Your task to perform on an android device: turn on translation in the chrome app Image 0: 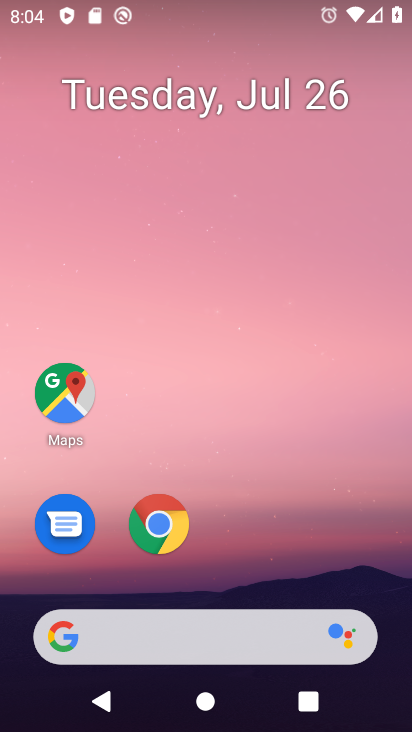
Step 0: click (167, 525)
Your task to perform on an android device: turn on translation in the chrome app Image 1: 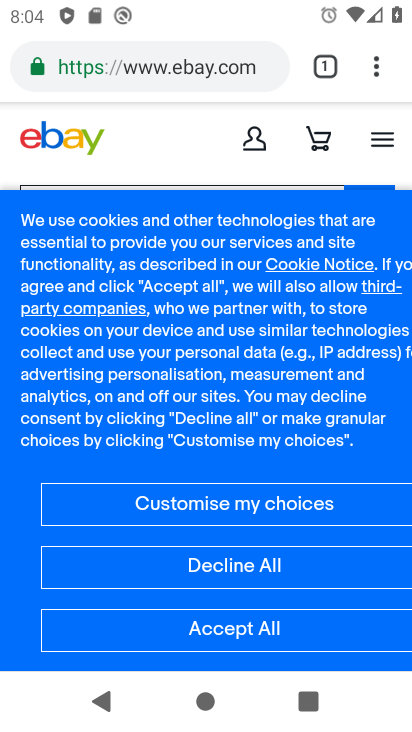
Step 1: click (320, 556)
Your task to perform on an android device: turn on translation in the chrome app Image 2: 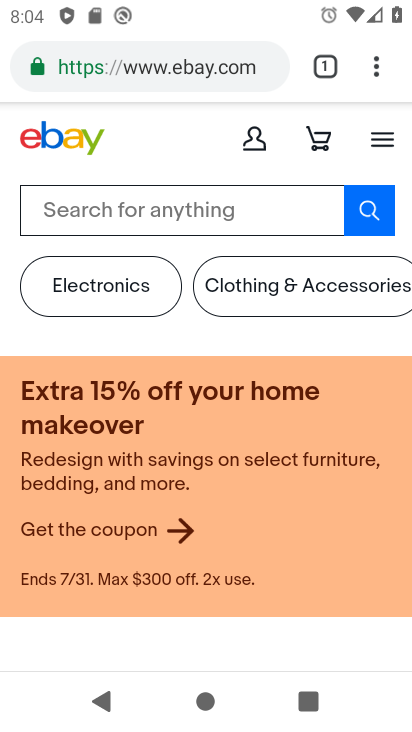
Step 2: click (376, 68)
Your task to perform on an android device: turn on translation in the chrome app Image 3: 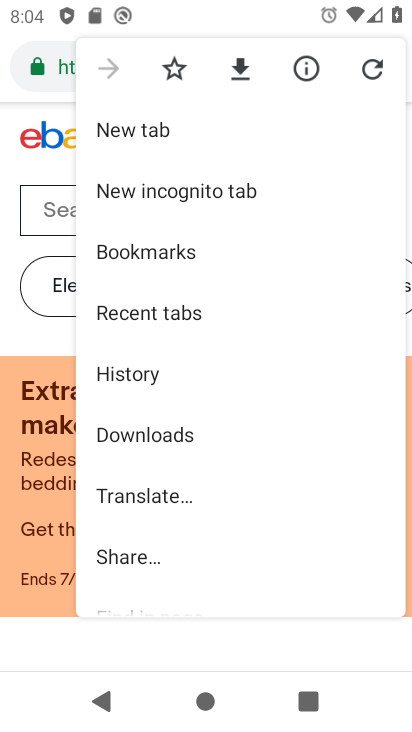
Step 3: drag from (246, 487) to (273, 153)
Your task to perform on an android device: turn on translation in the chrome app Image 4: 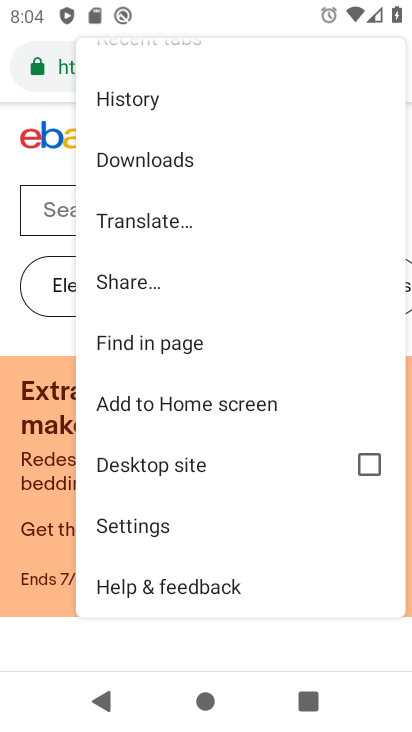
Step 4: click (161, 529)
Your task to perform on an android device: turn on translation in the chrome app Image 5: 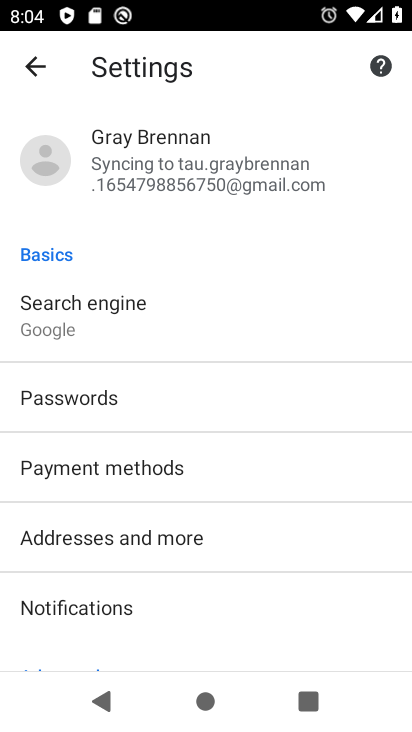
Step 5: drag from (270, 438) to (286, 223)
Your task to perform on an android device: turn on translation in the chrome app Image 6: 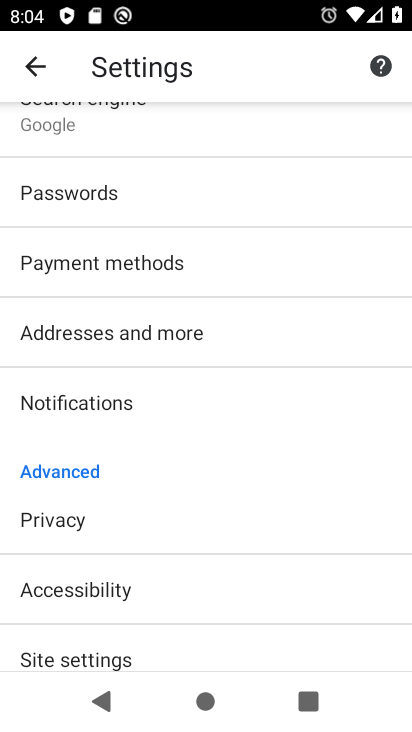
Step 6: drag from (242, 460) to (233, 184)
Your task to perform on an android device: turn on translation in the chrome app Image 7: 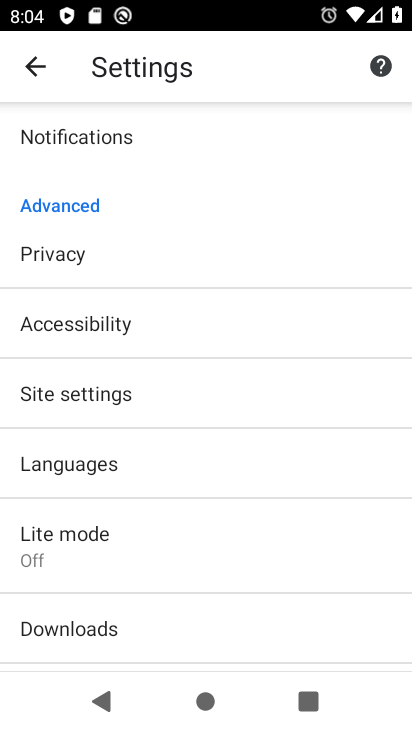
Step 7: click (139, 461)
Your task to perform on an android device: turn on translation in the chrome app Image 8: 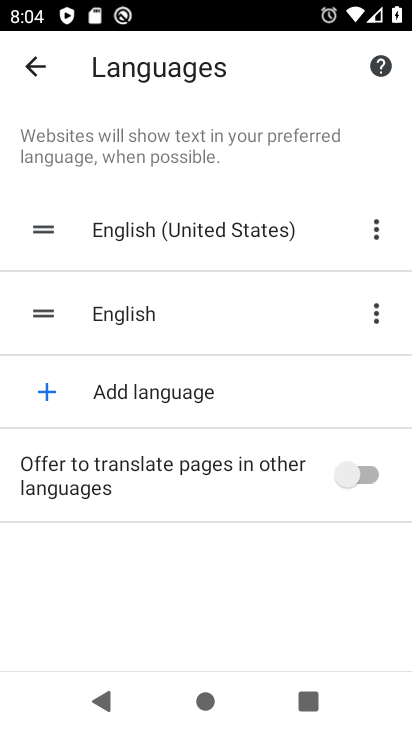
Step 8: click (374, 465)
Your task to perform on an android device: turn on translation in the chrome app Image 9: 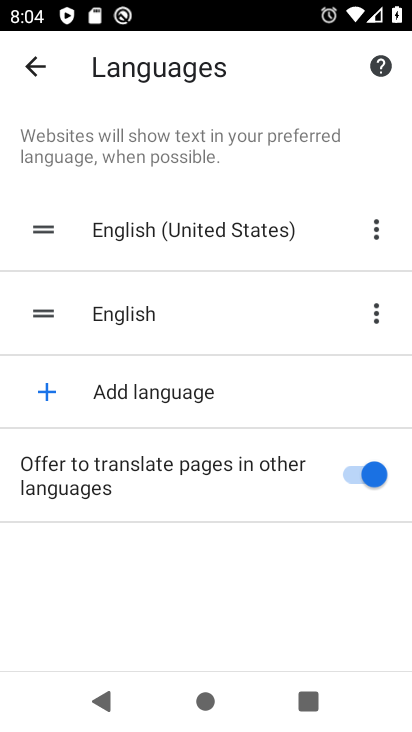
Step 9: task complete